Your task to perform on an android device: turn notification dots off Image 0: 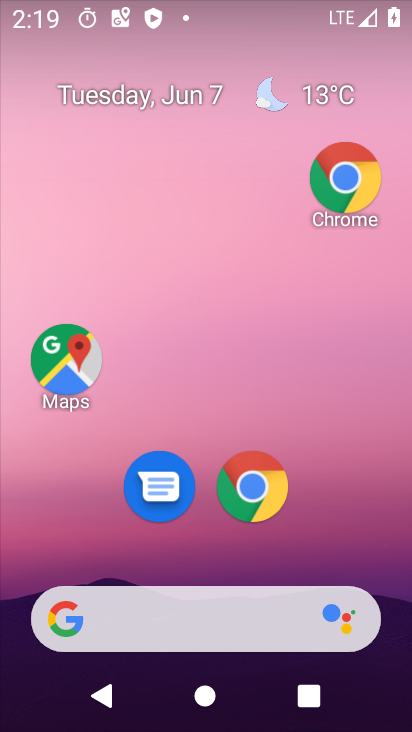
Step 0: drag from (78, 578) to (158, 153)
Your task to perform on an android device: turn notification dots off Image 1: 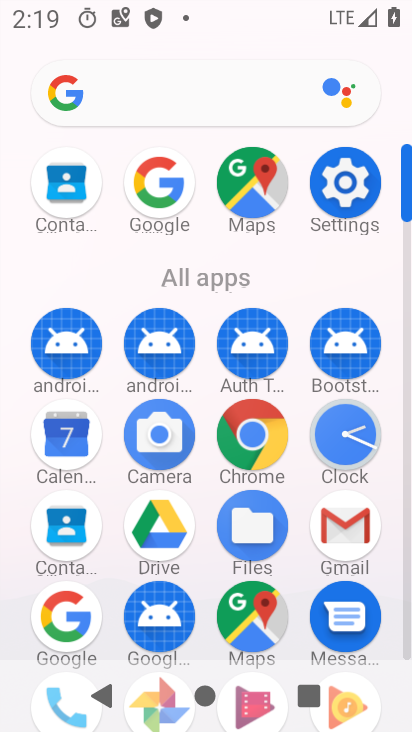
Step 1: drag from (123, 608) to (241, 278)
Your task to perform on an android device: turn notification dots off Image 2: 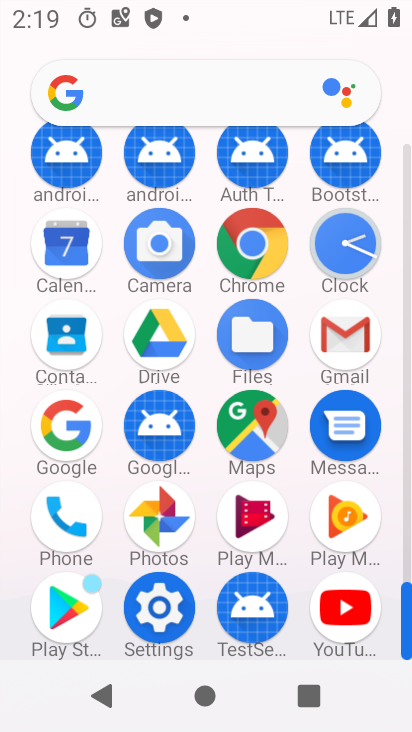
Step 2: click (149, 617)
Your task to perform on an android device: turn notification dots off Image 3: 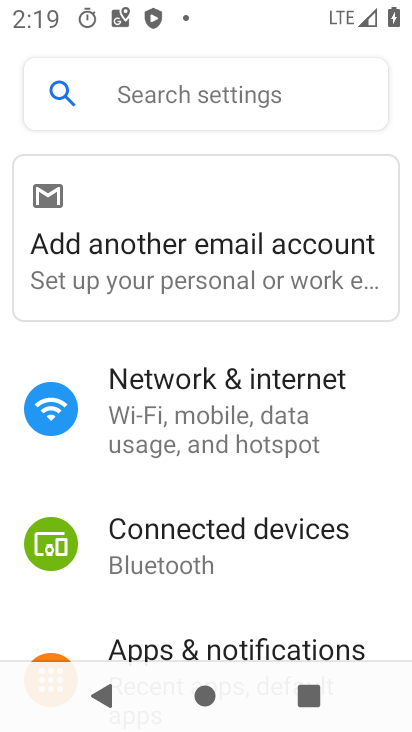
Step 3: drag from (187, 629) to (289, 308)
Your task to perform on an android device: turn notification dots off Image 4: 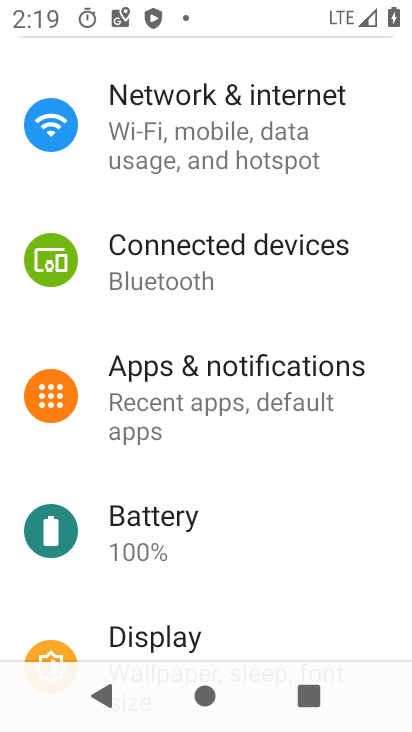
Step 4: click (254, 404)
Your task to perform on an android device: turn notification dots off Image 5: 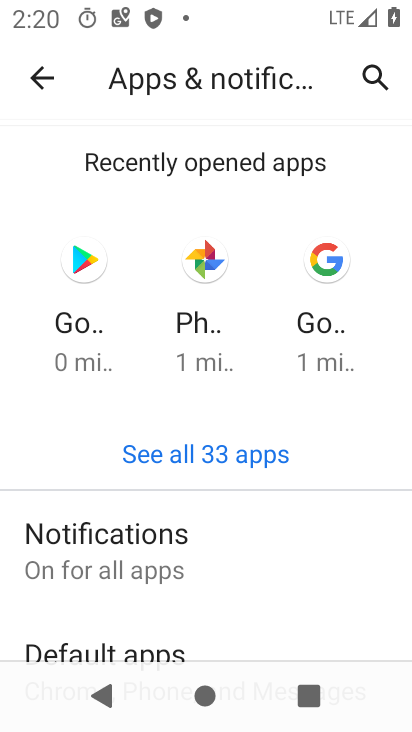
Step 5: click (123, 564)
Your task to perform on an android device: turn notification dots off Image 6: 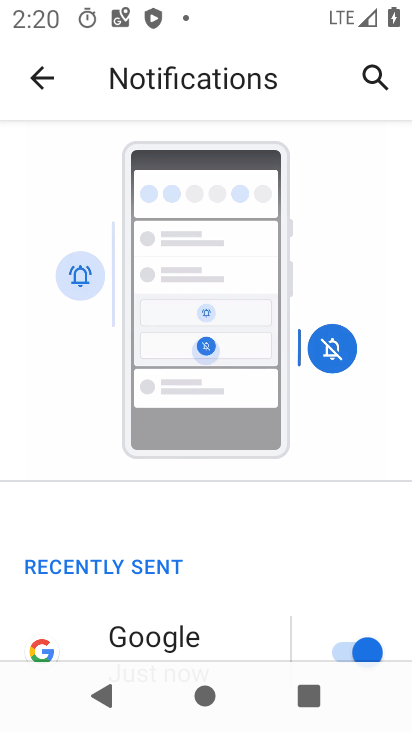
Step 6: drag from (125, 575) to (330, 70)
Your task to perform on an android device: turn notification dots off Image 7: 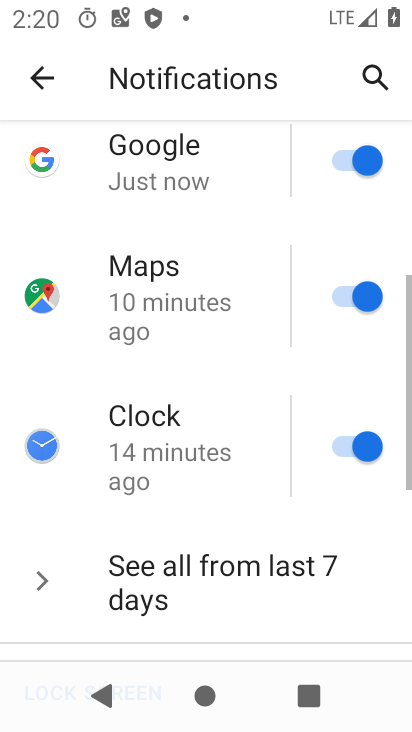
Step 7: drag from (197, 596) to (368, 126)
Your task to perform on an android device: turn notification dots off Image 8: 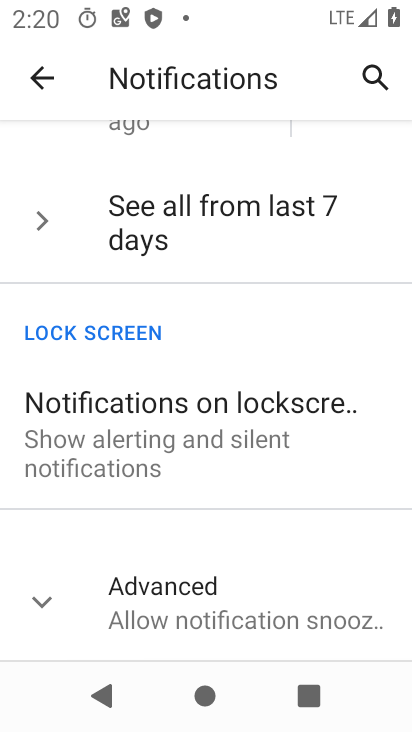
Step 8: drag from (176, 619) to (312, 249)
Your task to perform on an android device: turn notification dots off Image 9: 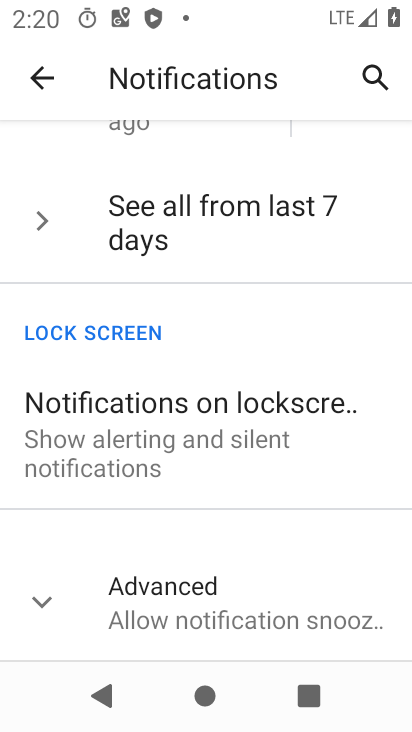
Step 9: click (209, 614)
Your task to perform on an android device: turn notification dots off Image 10: 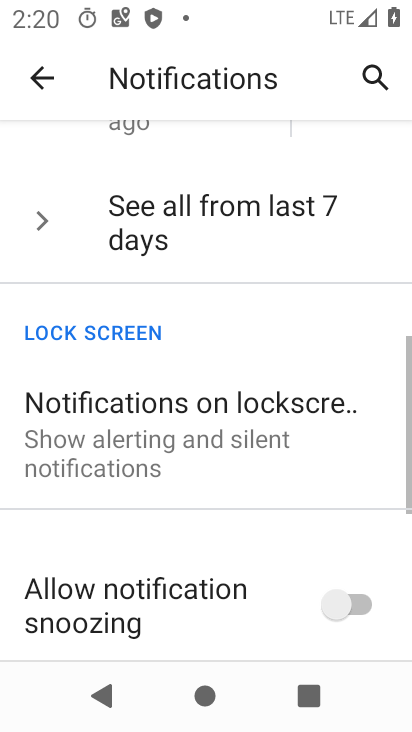
Step 10: drag from (201, 619) to (352, 154)
Your task to perform on an android device: turn notification dots off Image 11: 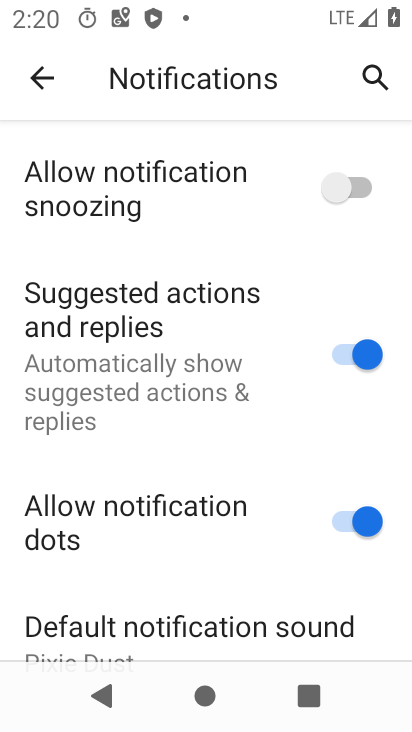
Step 11: click (338, 524)
Your task to perform on an android device: turn notification dots off Image 12: 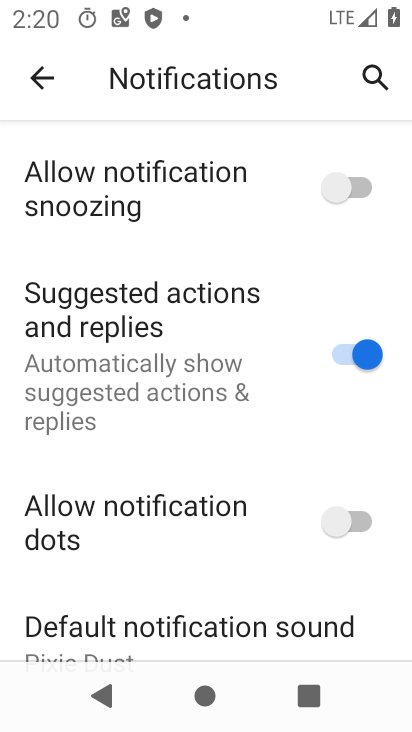
Step 12: task complete